Your task to perform on an android device: turn off smart reply in the gmail app Image 0: 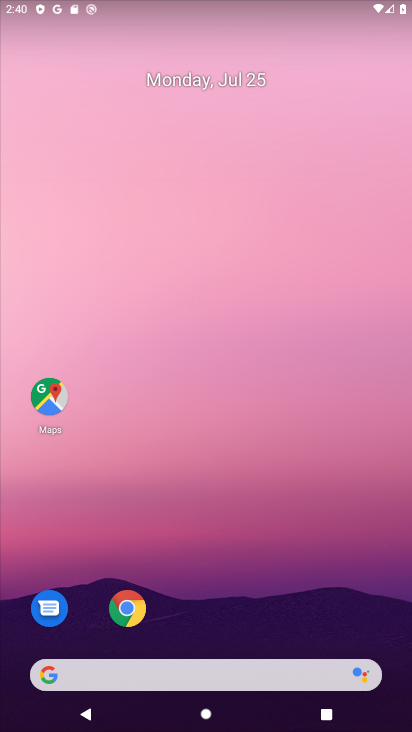
Step 0: drag from (131, 463) to (273, 127)
Your task to perform on an android device: turn off smart reply in the gmail app Image 1: 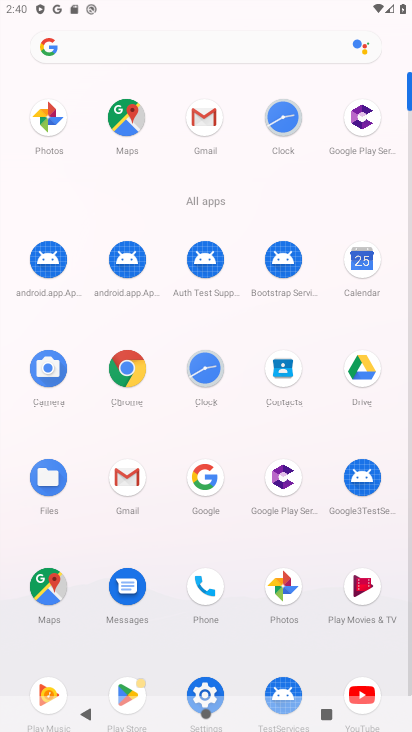
Step 1: click (200, 133)
Your task to perform on an android device: turn off smart reply in the gmail app Image 2: 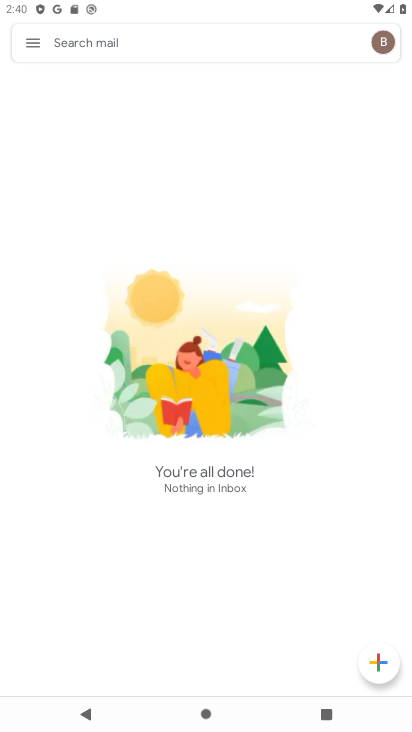
Step 2: click (29, 42)
Your task to perform on an android device: turn off smart reply in the gmail app Image 3: 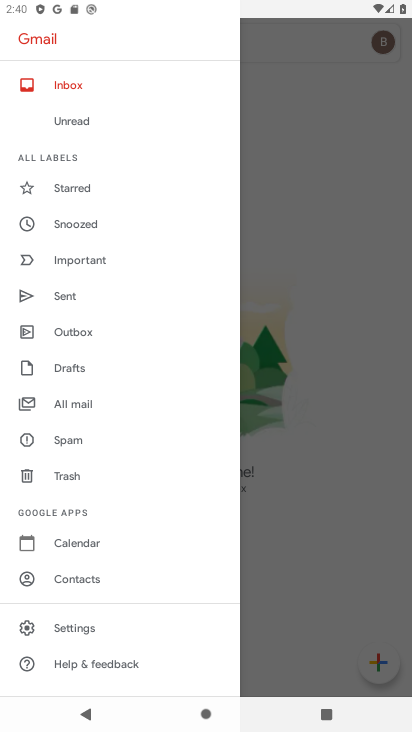
Step 3: click (84, 628)
Your task to perform on an android device: turn off smart reply in the gmail app Image 4: 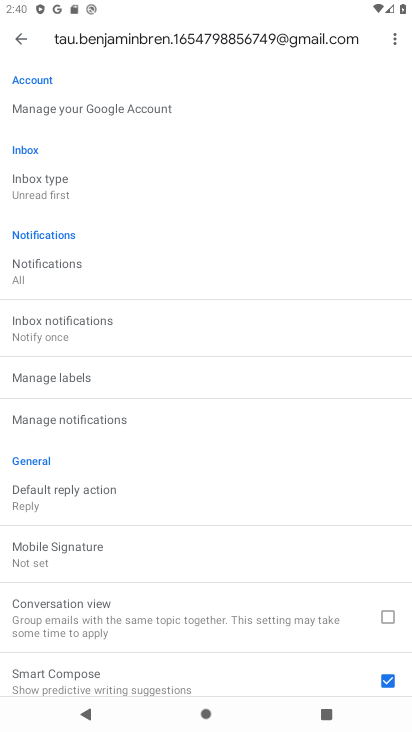
Step 4: drag from (18, 578) to (206, 242)
Your task to perform on an android device: turn off smart reply in the gmail app Image 5: 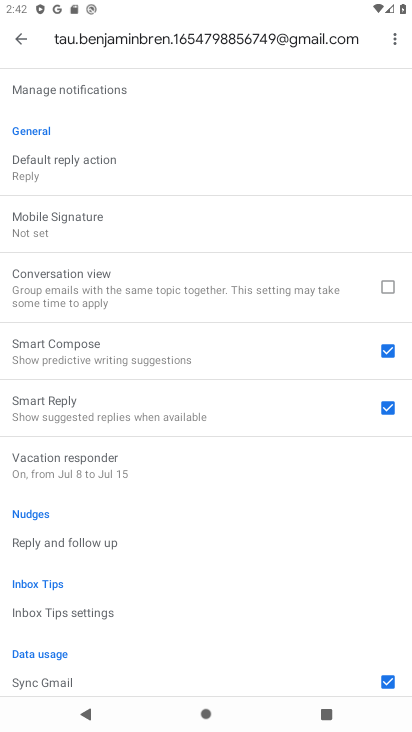
Step 5: click (387, 409)
Your task to perform on an android device: turn off smart reply in the gmail app Image 6: 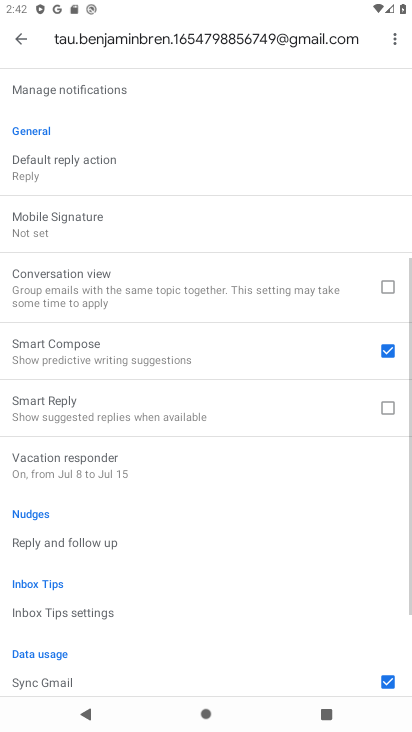
Step 6: task complete